Your task to perform on an android device: Go to Yahoo.com Image 0: 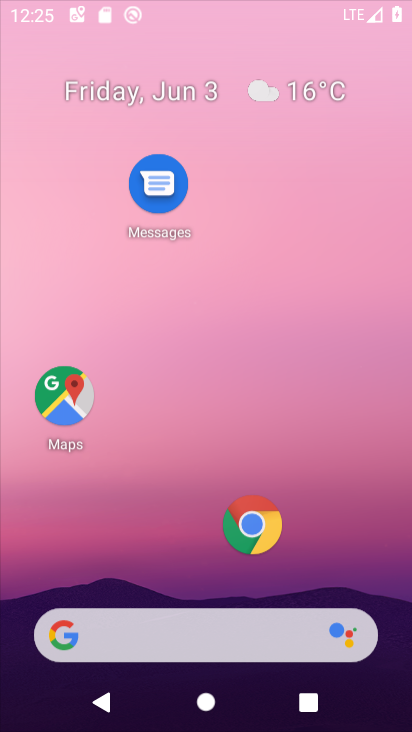
Step 0: press home button
Your task to perform on an android device: Go to Yahoo.com Image 1: 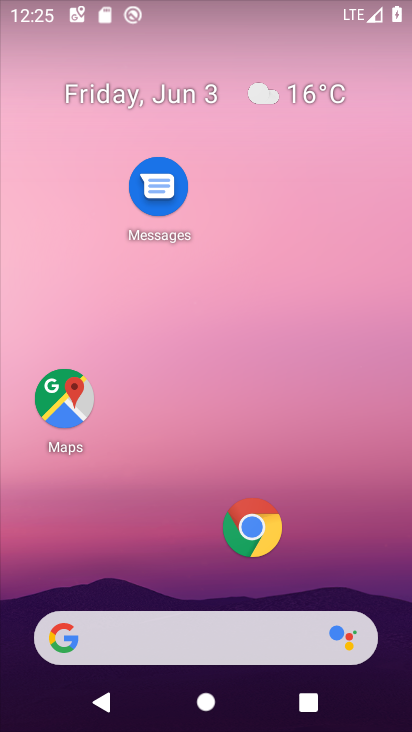
Step 1: click (250, 520)
Your task to perform on an android device: Go to Yahoo.com Image 2: 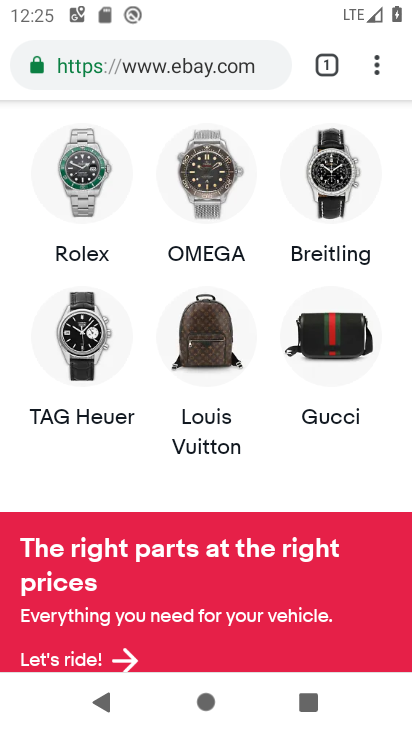
Step 2: click (323, 66)
Your task to perform on an android device: Go to Yahoo.com Image 3: 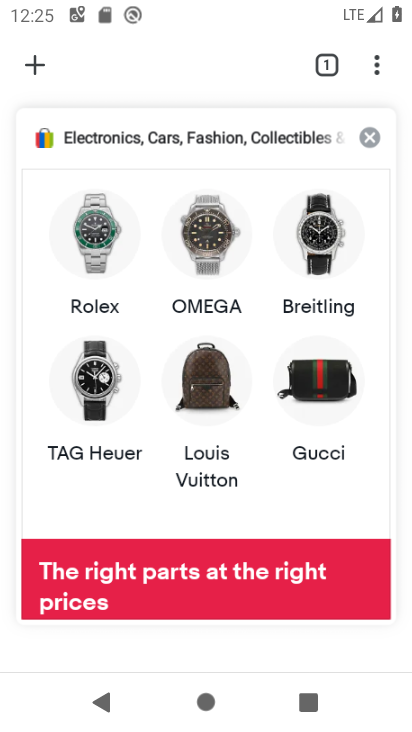
Step 3: click (371, 137)
Your task to perform on an android device: Go to Yahoo.com Image 4: 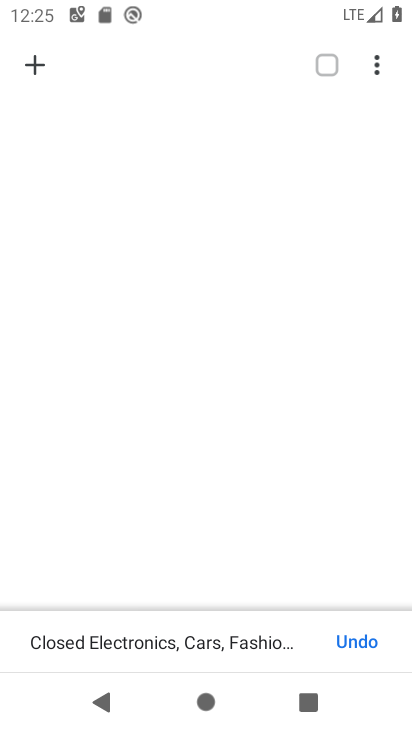
Step 4: click (41, 62)
Your task to perform on an android device: Go to Yahoo.com Image 5: 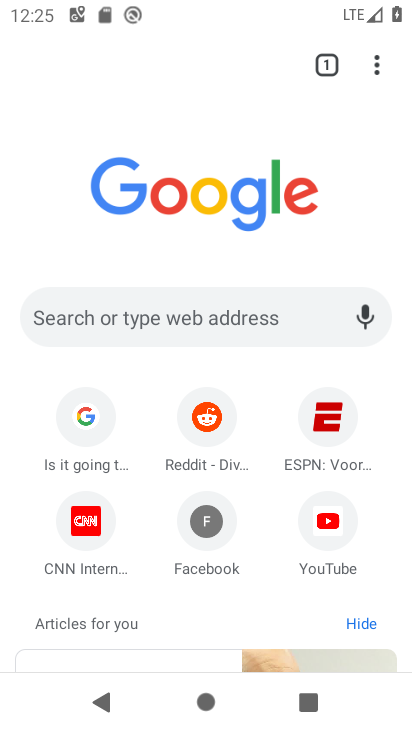
Step 5: click (178, 312)
Your task to perform on an android device: Go to Yahoo.com Image 6: 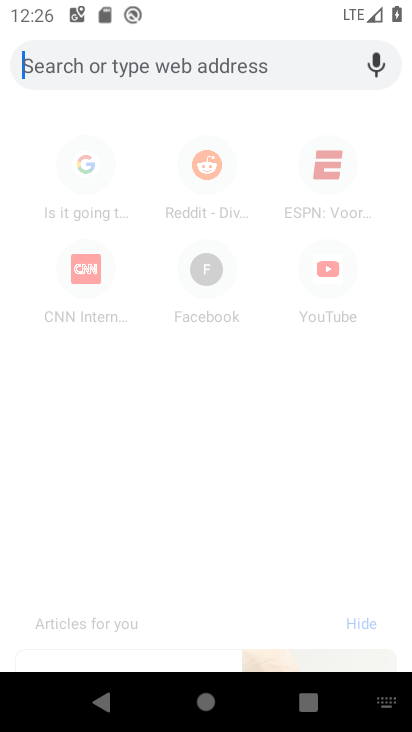
Step 6: type "yahoo.com"
Your task to perform on an android device: Go to Yahoo.com Image 7: 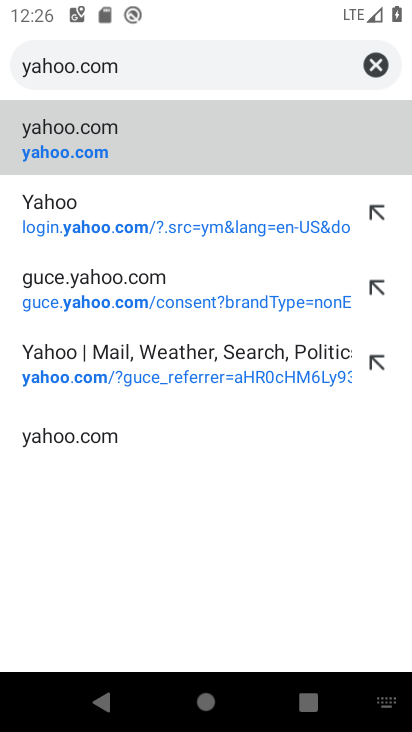
Step 7: click (133, 150)
Your task to perform on an android device: Go to Yahoo.com Image 8: 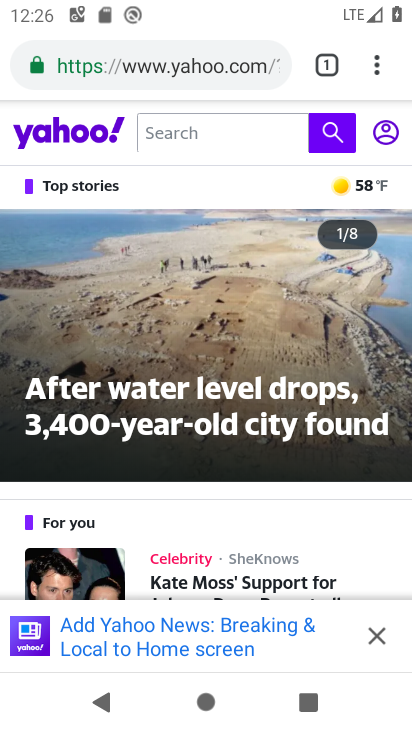
Step 8: click (372, 636)
Your task to perform on an android device: Go to Yahoo.com Image 9: 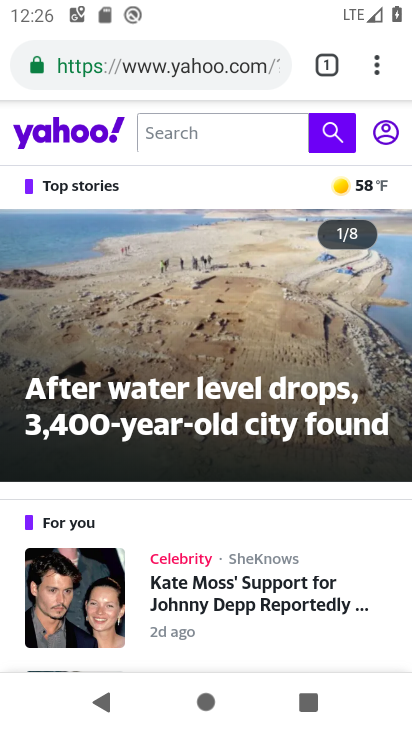
Step 9: task complete